Your task to perform on an android device: turn on improve location accuracy Image 0: 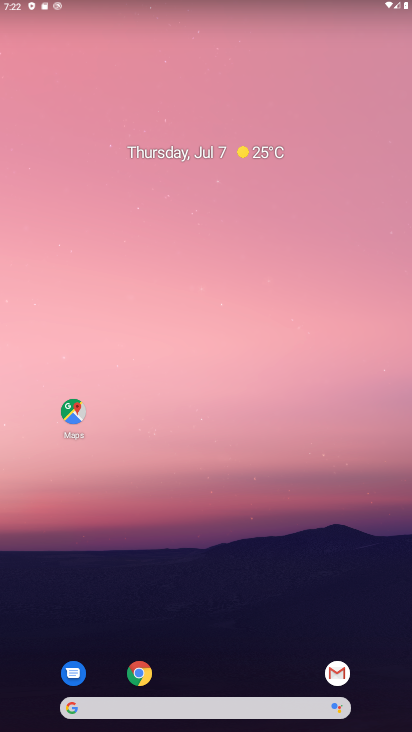
Step 0: drag from (213, 718) to (247, 257)
Your task to perform on an android device: turn on improve location accuracy Image 1: 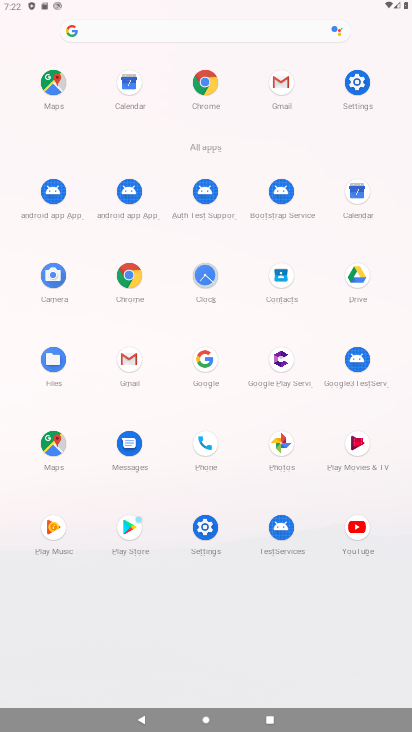
Step 1: drag from (350, 84) to (257, 648)
Your task to perform on an android device: turn on improve location accuracy Image 2: 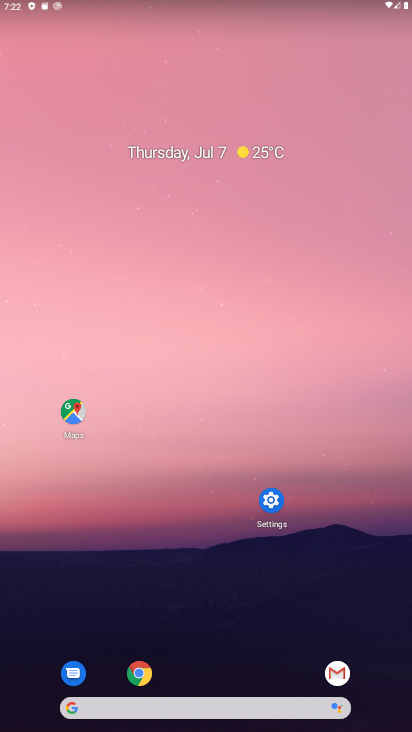
Step 2: drag from (270, 500) to (264, 703)
Your task to perform on an android device: turn on improve location accuracy Image 3: 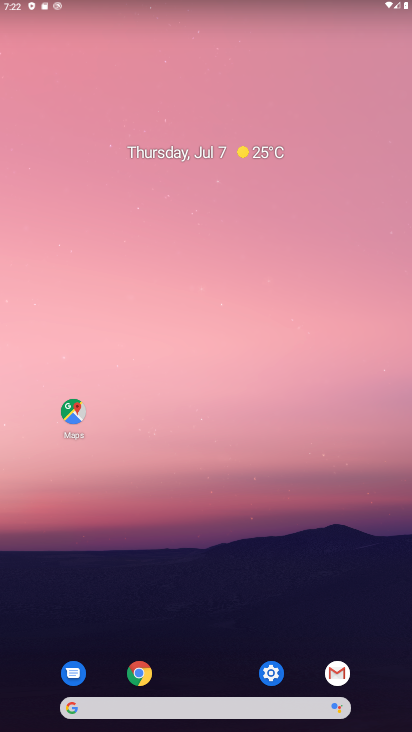
Step 3: click (285, 673)
Your task to perform on an android device: turn on improve location accuracy Image 4: 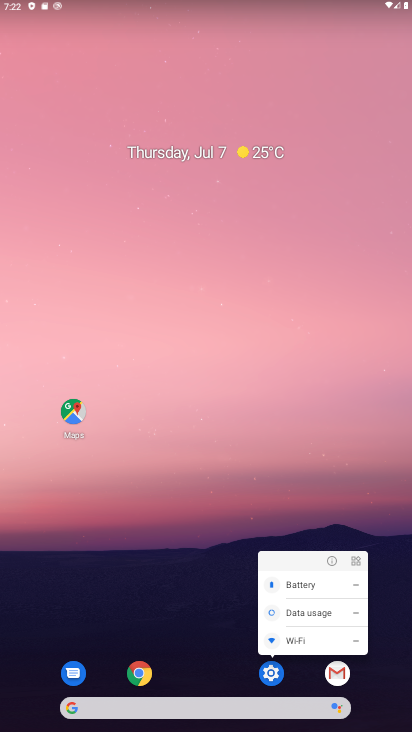
Step 4: click (277, 668)
Your task to perform on an android device: turn on improve location accuracy Image 5: 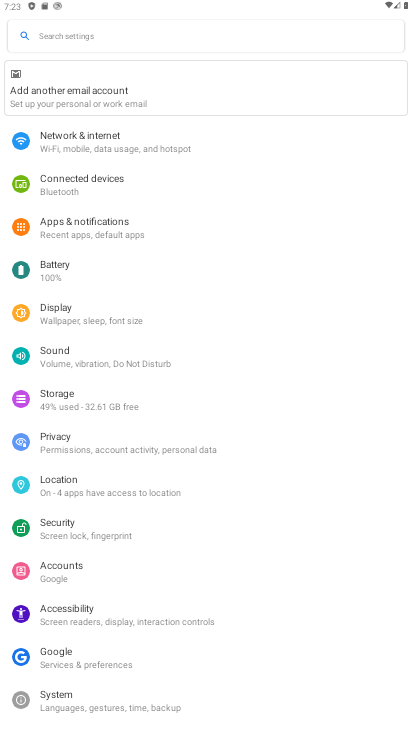
Step 5: click (95, 483)
Your task to perform on an android device: turn on improve location accuracy Image 6: 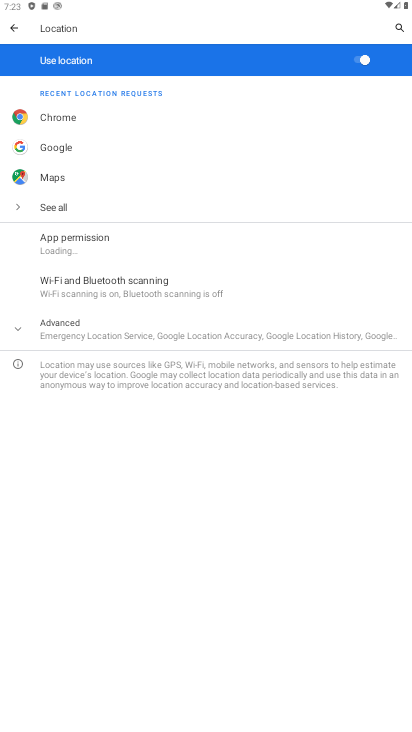
Step 6: click (54, 325)
Your task to perform on an android device: turn on improve location accuracy Image 7: 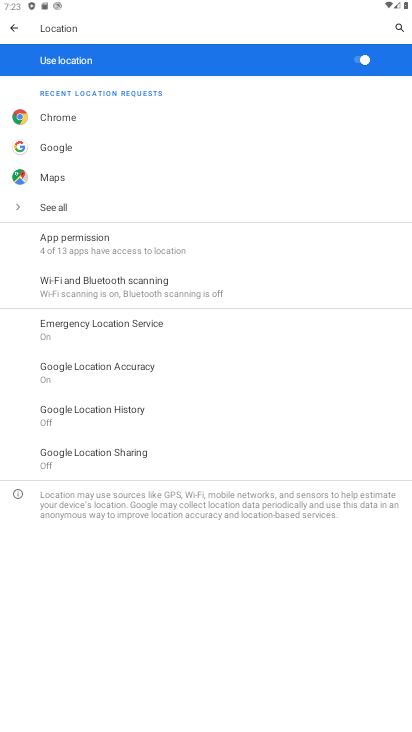
Step 7: click (118, 366)
Your task to perform on an android device: turn on improve location accuracy Image 8: 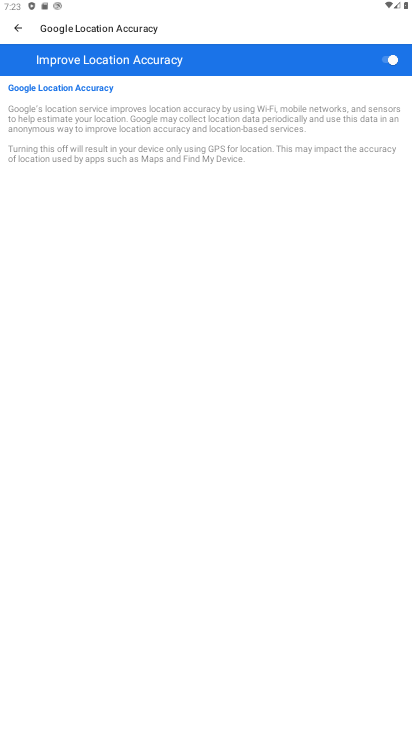
Step 8: task complete